Your task to perform on an android device: Go to notification settings Image 0: 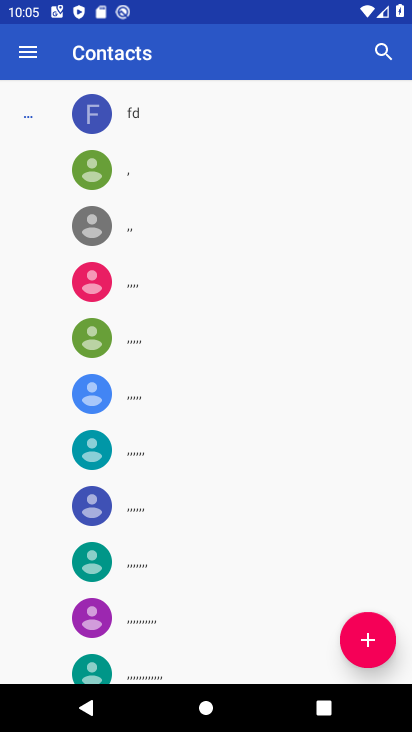
Step 0: press home button
Your task to perform on an android device: Go to notification settings Image 1: 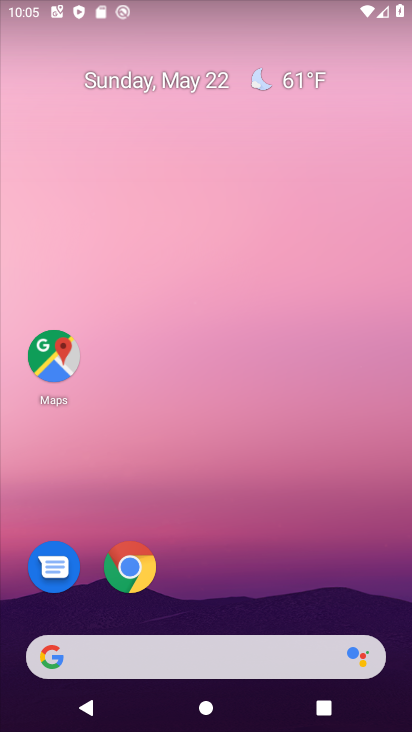
Step 1: drag from (196, 634) to (185, 49)
Your task to perform on an android device: Go to notification settings Image 2: 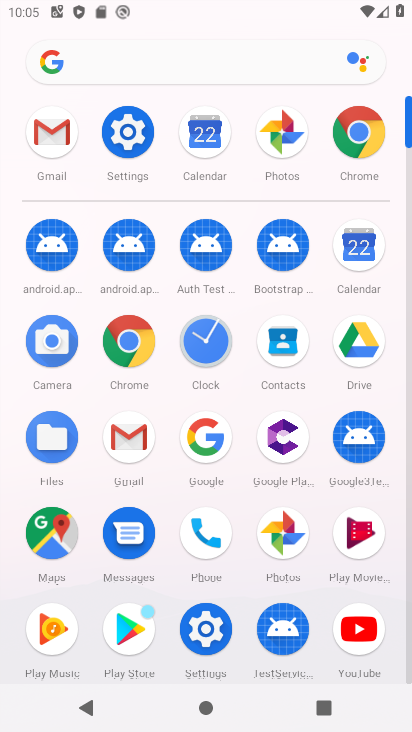
Step 2: click (128, 133)
Your task to perform on an android device: Go to notification settings Image 3: 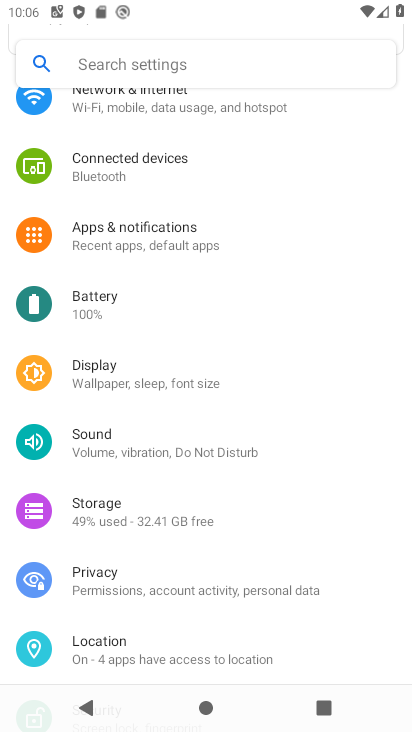
Step 3: click (150, 222)
Your task to perform on an android device: Go to notification settings Image 4: 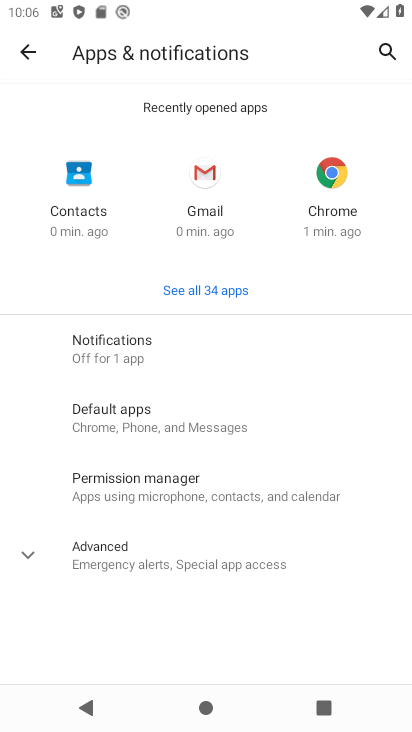
Step 4: click (140, 342)
Your task to perform on an android device: Go to notification settings Image 5: 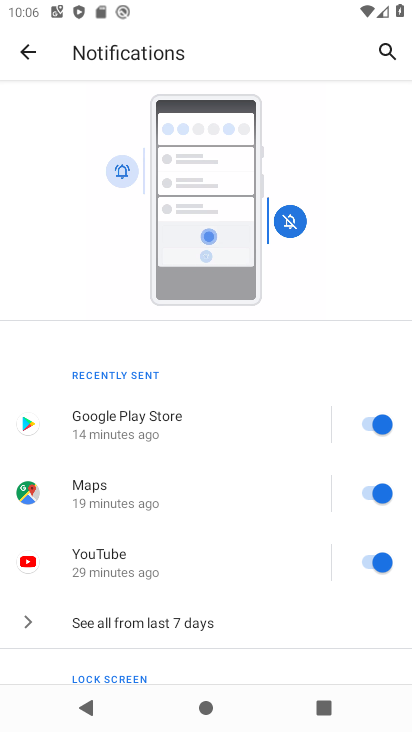
Step 5: task complete